Your task to perform on an android device: Open notification settings Image 0: 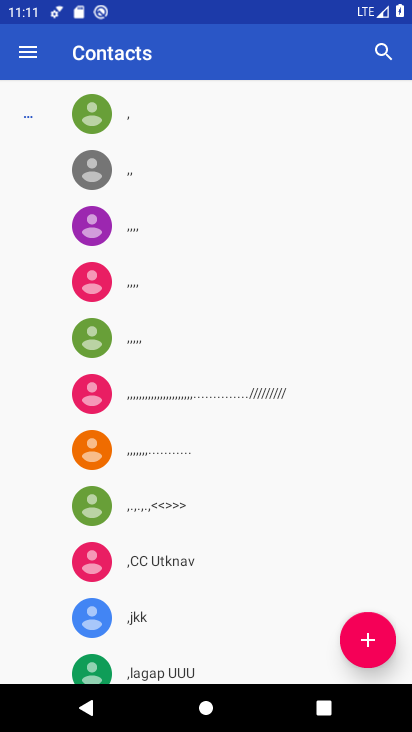
Step 0: press home button
Your task to perform on an android device: Open notification settings Image 1: 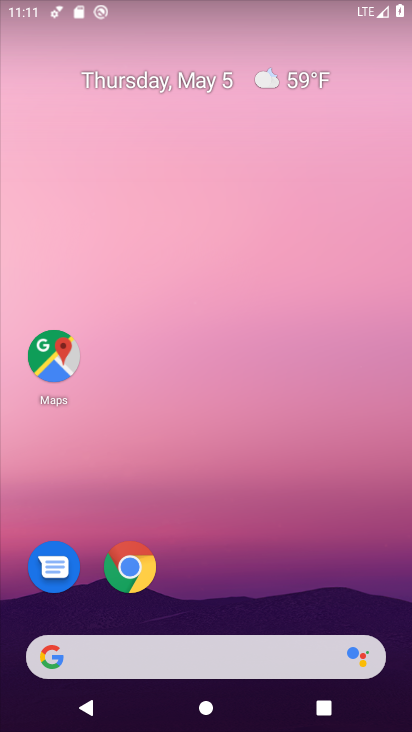
Step 1: drag from (283, 594) to (279, 33)
Your task to perform on an android device: Open notification settings Image 2: 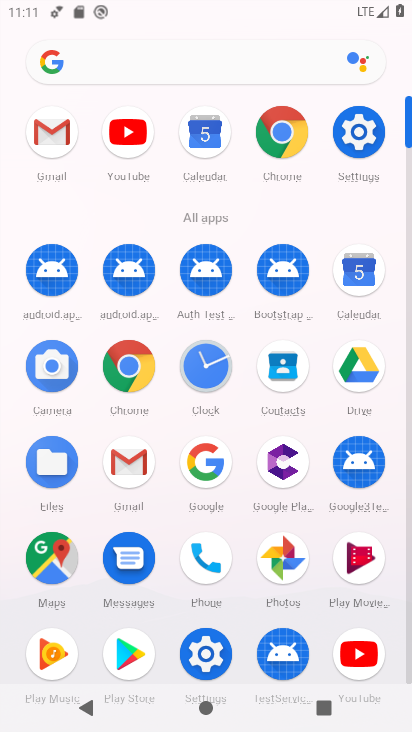
Step 2: click (366, 148)
Your task to perform on an android device: Open notification settings Image 3: 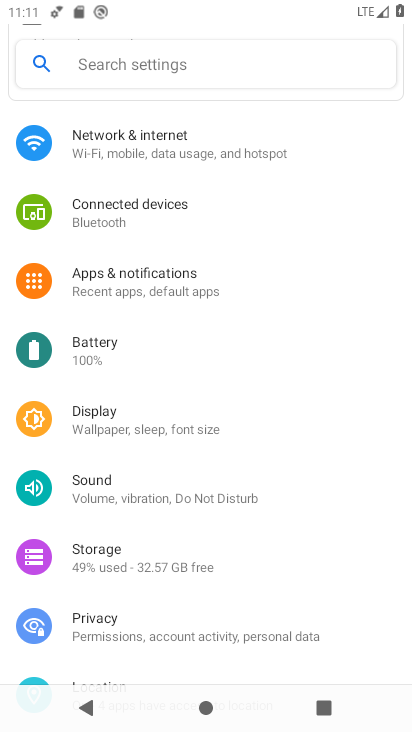
Step 3: click (137, 297)
Your task to perform on an android device: Open notification settings Image 4: 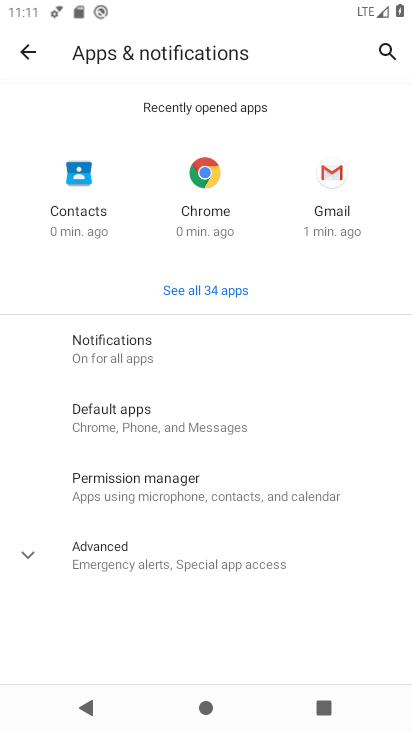
Step 4: task complete